Your task to perform on an android device: Turn on the flashlight Image 0: 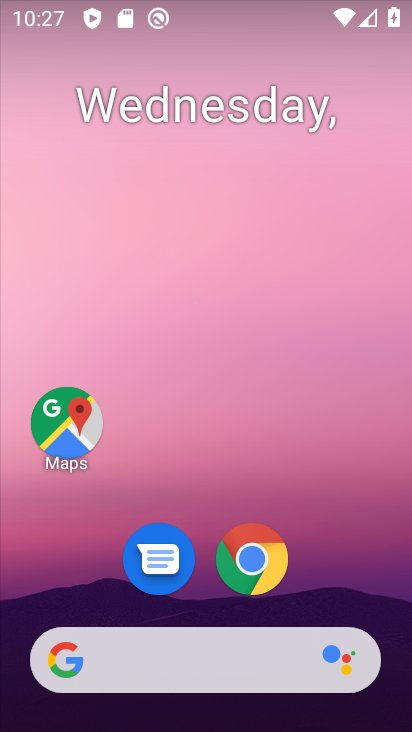
Step 0: drag from (342, 534) to (318, 0)
Your task to perform on an android device: Turn on the flashlight Image 1: 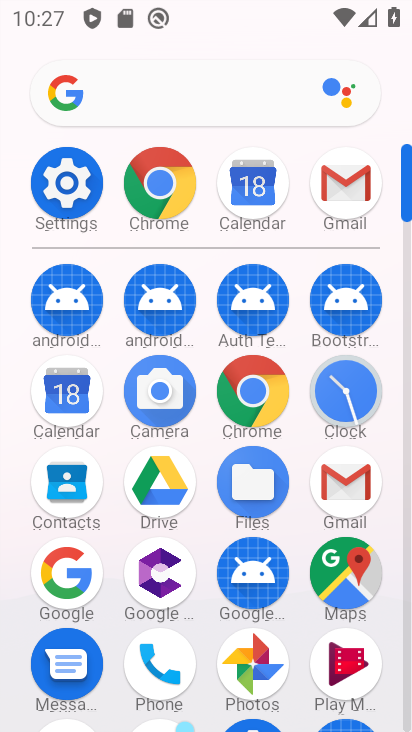
Step 1: click (27, 225)
Your task to perform on an android device: Turn on the flashlight Image 2: 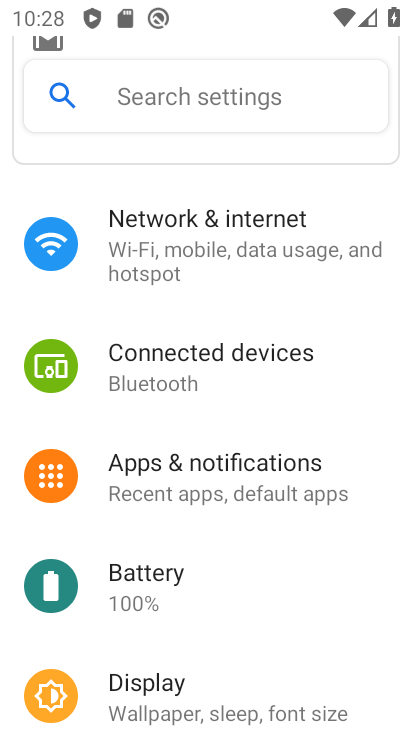
Step 2: task complete